Your task to perform on an android device: change the clock display to analog Image 0: 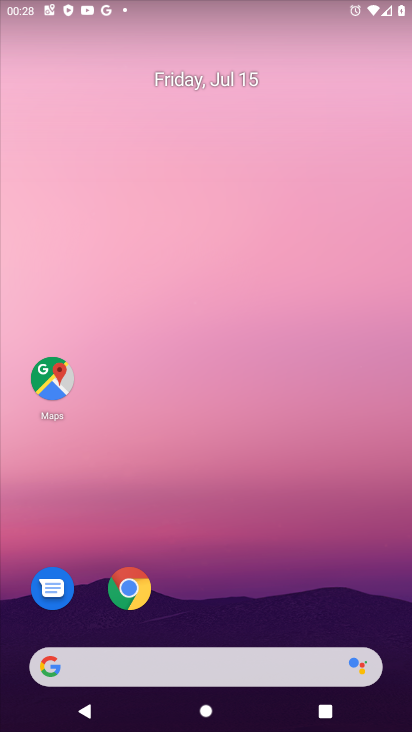
Step 0: press home button
Your task to perform on an android device: change the clock display to analog Image 1: 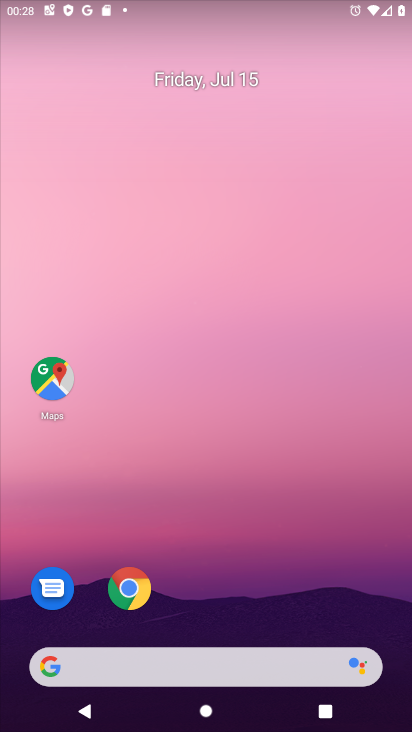
Step 1: drag from (203, 671) to (317, 144)
Your task to perform on an android device: change the clock display to analog Image 2: 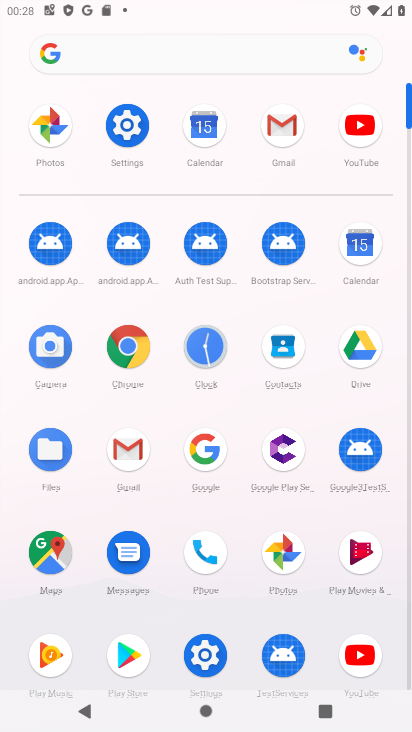
Step 2: click (203, 353)
Your task to perform on an android device: change the clock display to analog Image 3: 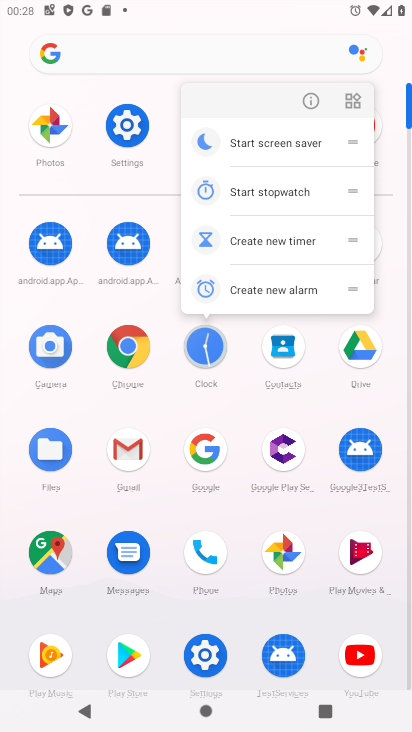
Step 3: click (207, 345)
Your task to perform on an android device: change the clock display to analog Image 4: 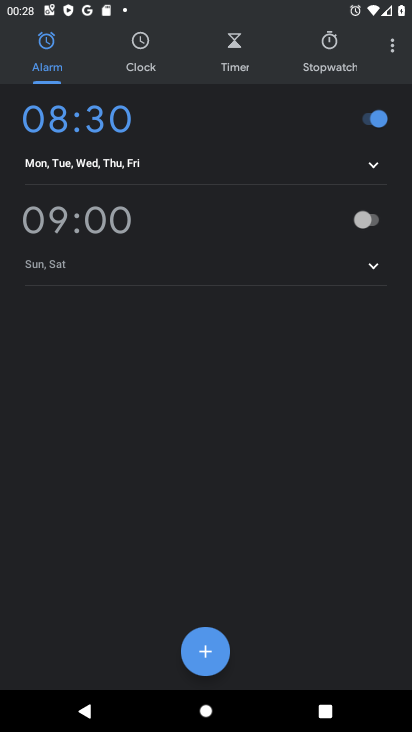
Step 4: click (395, 48)
Your task to perform on an android device: change the clock display to analog Image 5: 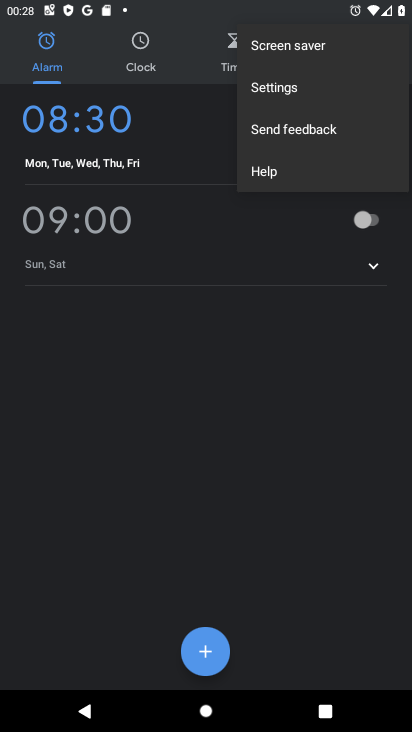
Step 5: click (272, 87)
Your task to perform on an android device: change the clock display to analog Image 6: 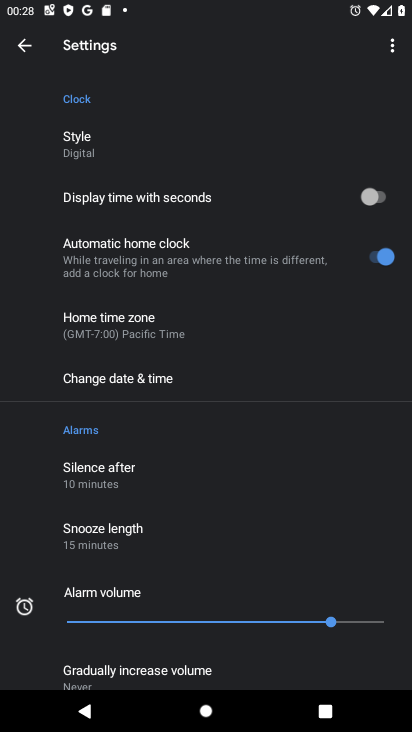
Step 6: click (83, 142)
Your task to perform on an android device: change the clock display to analog Image 7: 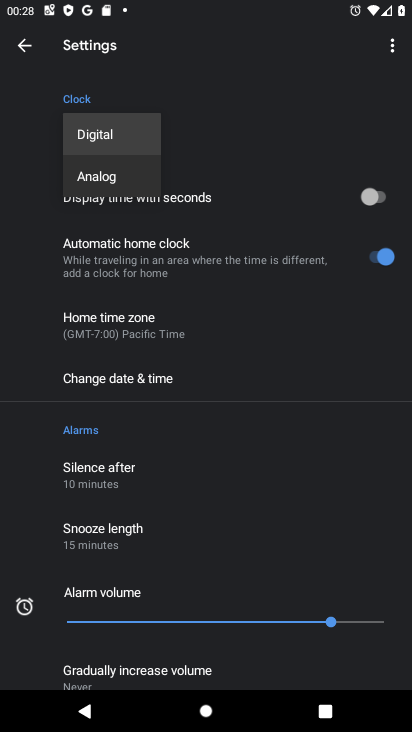
Step 7: click (114, 176)
Your task to perform on an android device: change the clock display to analog Image 8: 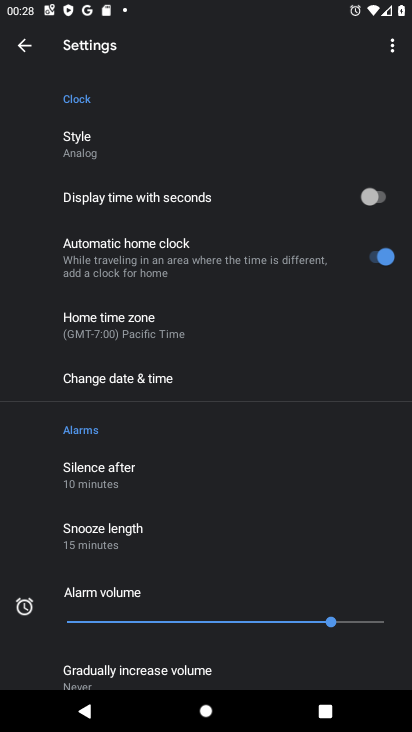
Step 8: task complete